Your task to perform on an android device: Go to notification settings Image 0: 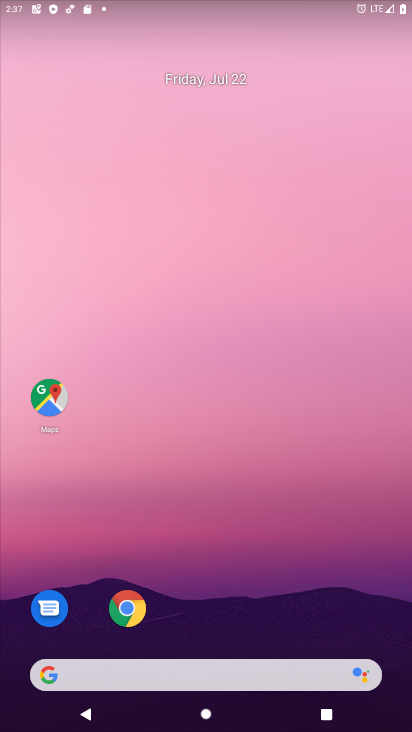
Step 0: drag from (389, 594) to (314, 118)
Your task to perform on an android device: Go to notification settings Image 1: 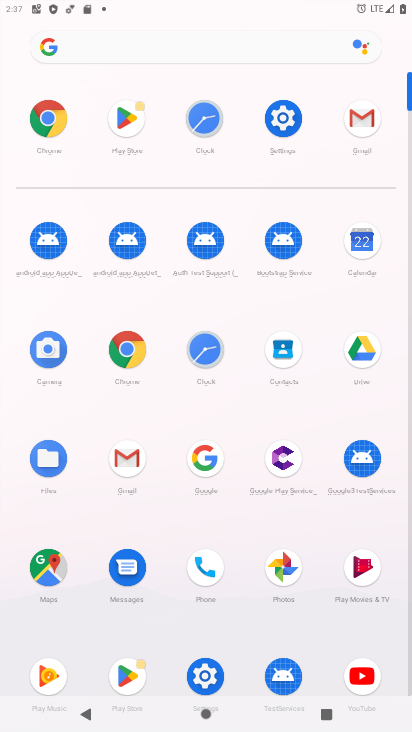
Step 1: click (292, 116)
Your task to perform on an android device: Go to notification settings Image 2: 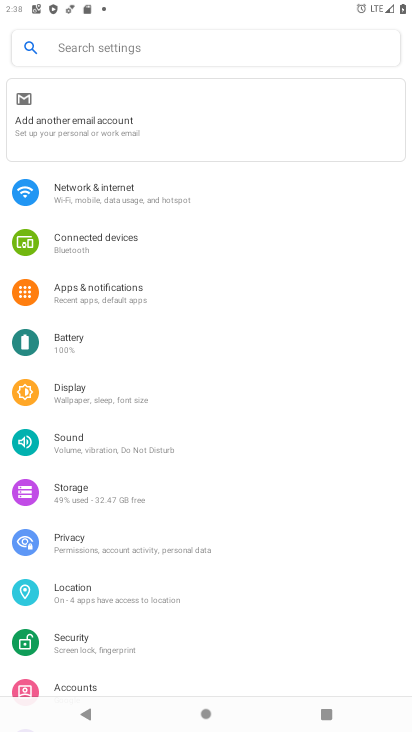
Step 2: click (97, 293)
Your task to perform on an android device: Go to notification settings Image 3: 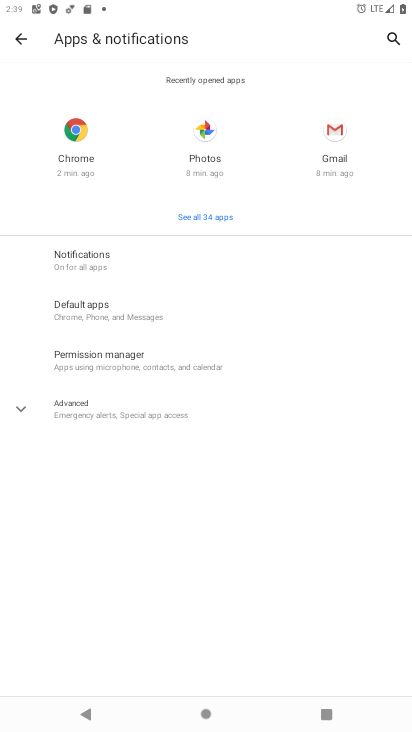
Step 3: click (25, 414)
Your task to perform on an android device: Go to notification settings Image 4: 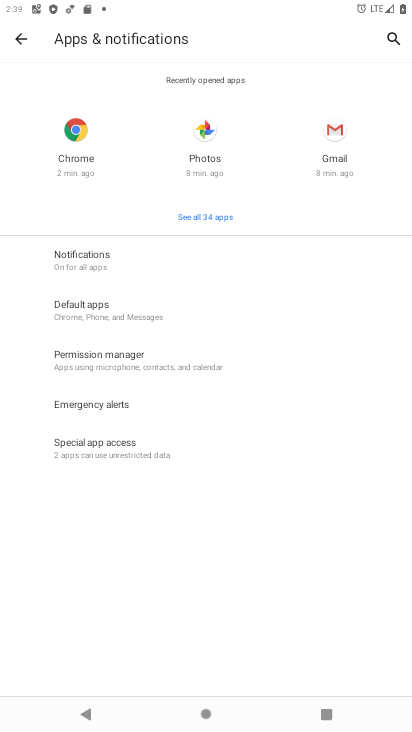
Step 4: task complete